Your task to perform on an android device: delete a single message in the gmail app Image 0: 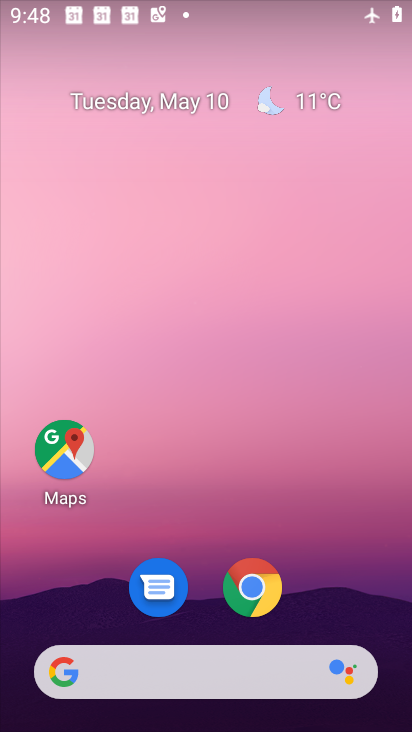
Step 0: drag from (345, 582) to (345, 111)
Your task to perform on an android device: delete a single message in the gmail app Image 1: 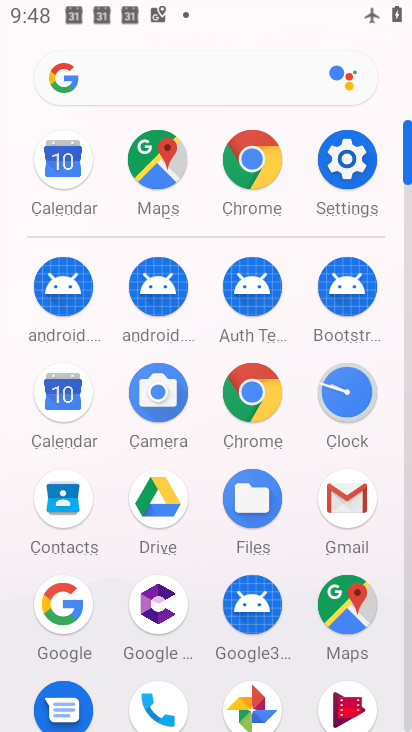
Step 1: click (368, 495)
Your task to perform on an android device: delete a single message in the gmail app Image 2: 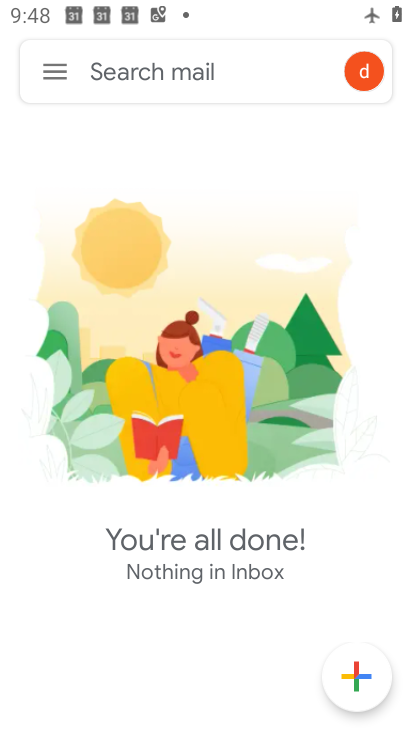
Step 2: click (63, 68)
Your task to perform on an android device: delete a single message in the gmail app Image 3: 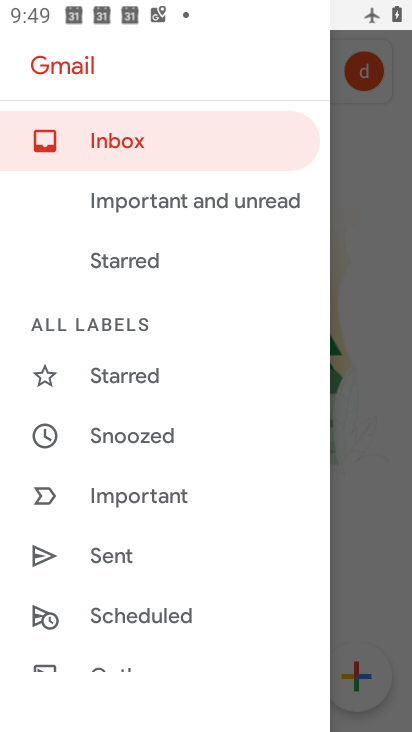
Step 3: task complete